Your task to perform on an android device: set default search engine in the chrome app Image 0: 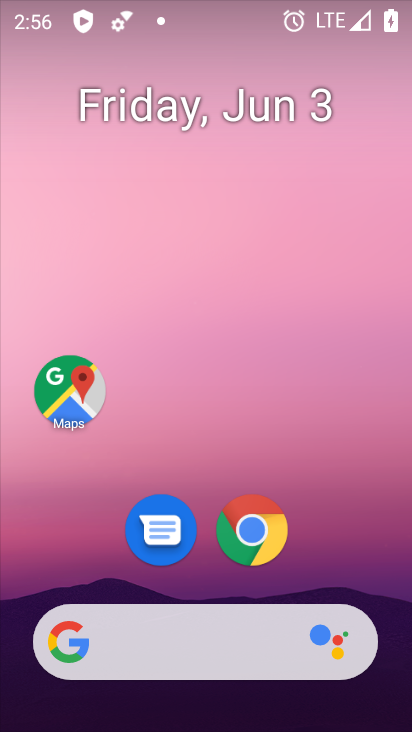
Step 0: click (260, 550)
Your task to perform on an android device: set default search engine in the chrome app Image 1: 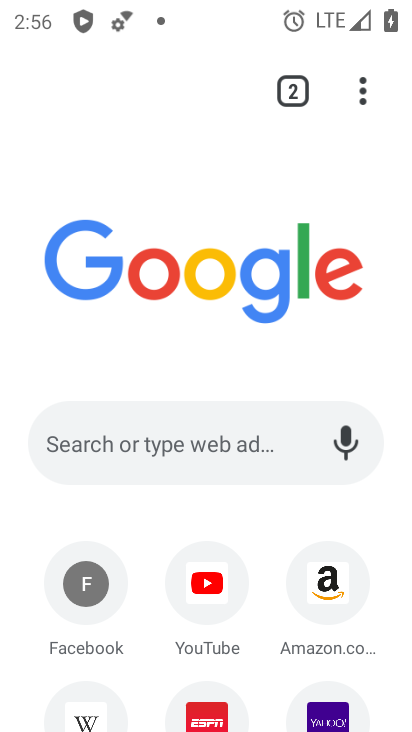
Step 1: click (367, 90)
Your task to perform on an android device: set default search engine in the chrome app Image 2: 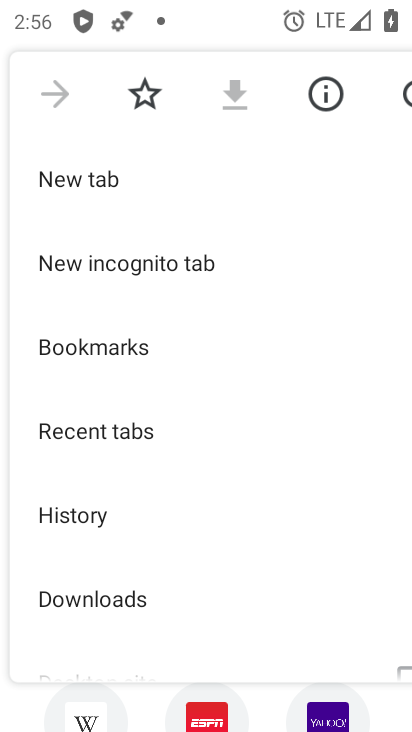
Step 2: drag from (225, 439) to (232, 207)
Your task to perform on an android device: set default search engine in the chrome app Image 3: 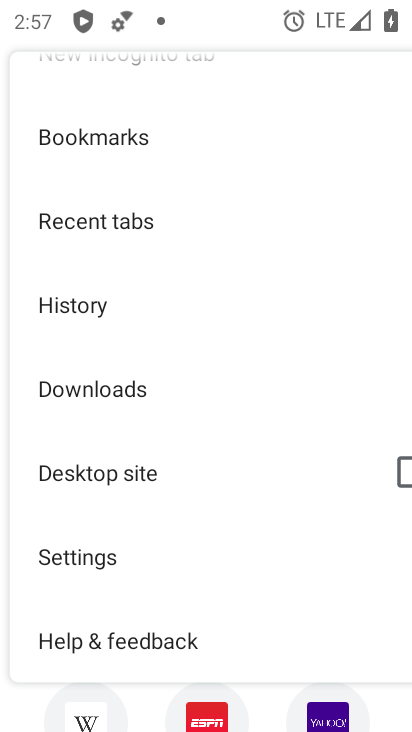
Step 3: click (87, 559)
Your task to perform on an android device: set default search engine in the chrome app Image 4: 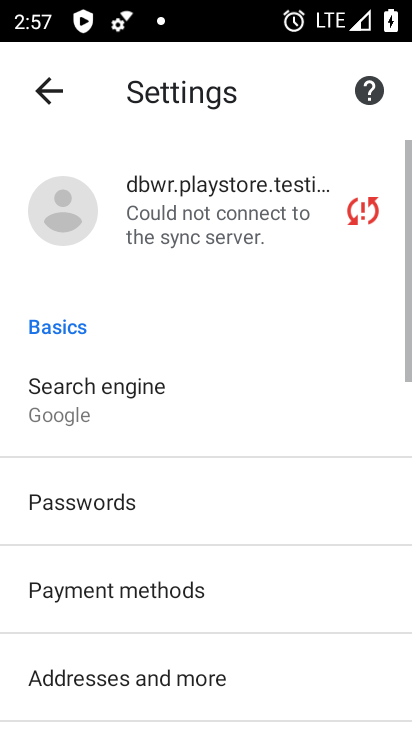
Step 4: click (128, 408)
Your task to perform on an android device: set default search engine in the chrome app Image 5: 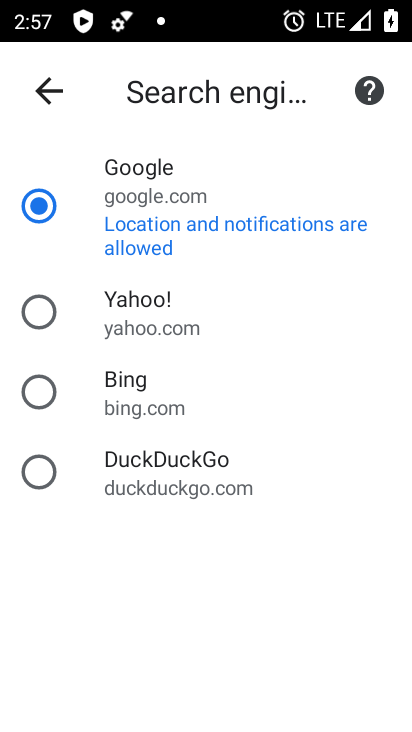
Step 5: click (180, 332)
Your task to perform on an android device: set default search engine in the chrome app Image 6: 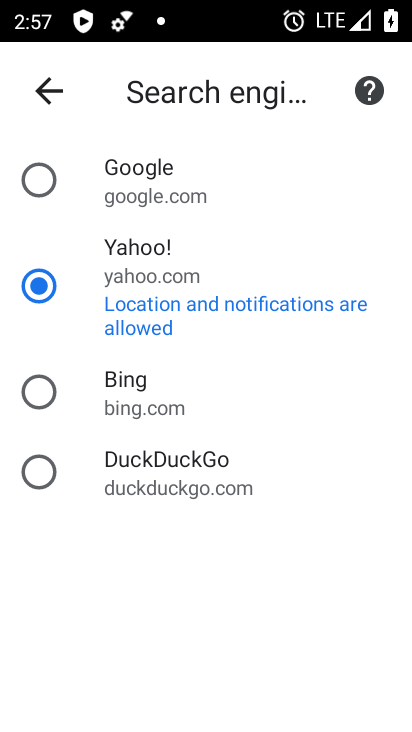
Step 6: task complete